Your task to perform on an android device: Open Google Chrome Image 0: 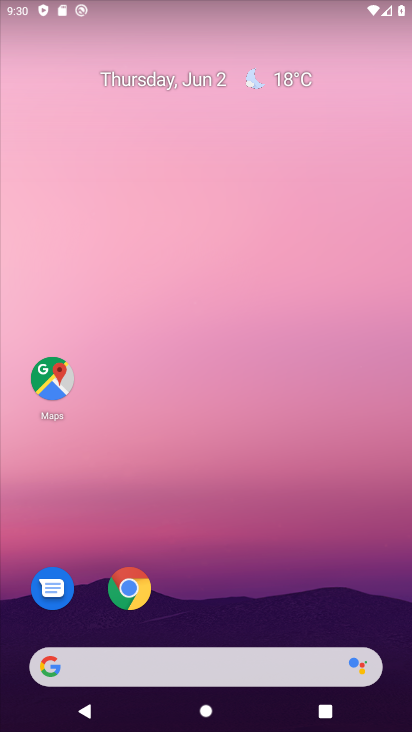
Step 0: drag from (268, 668) to (220, 282)
Your task to perform on an android device: Open Google Chrome Image 1: 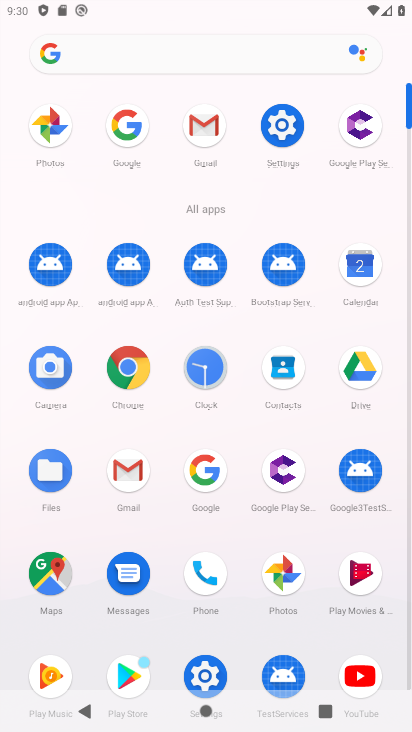
Step 1: click (116, 372)
Your task to perform on an android device: Open Google Chrome Image 2: 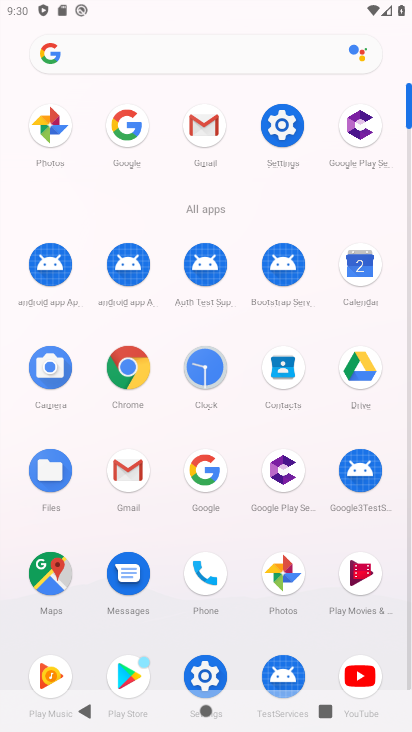
Step 2: click (120, 373)
Your task to perform on an android device: Open Google Chrome Image 3: 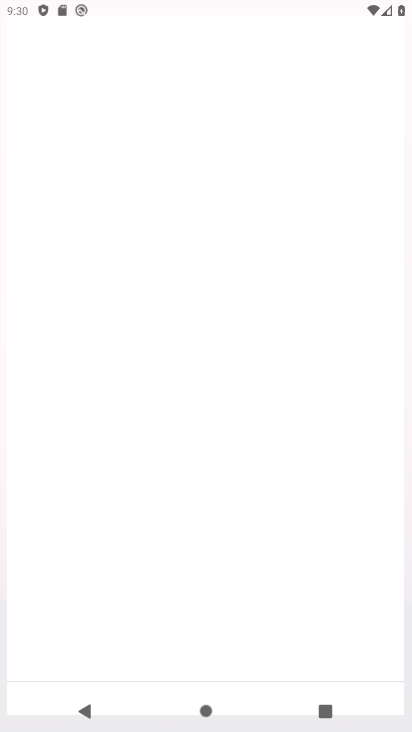
Step 3: click (123, 372)
Your task to perform on an android device: Open Google Chrome Image 4: 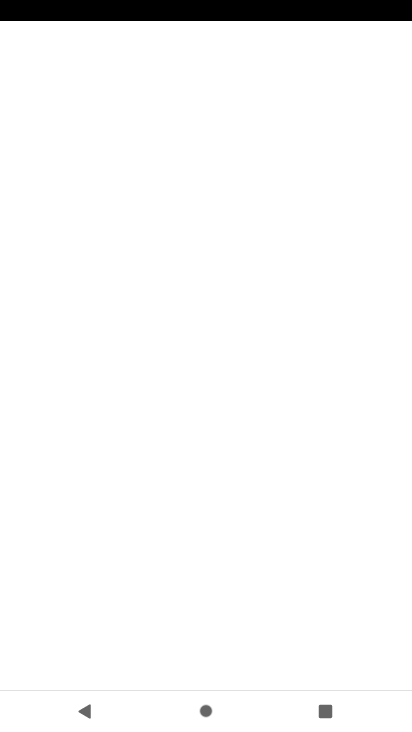
Step 4: click (123, 371)
Your task to perform on an android device: Open Google Chrome Image 5: 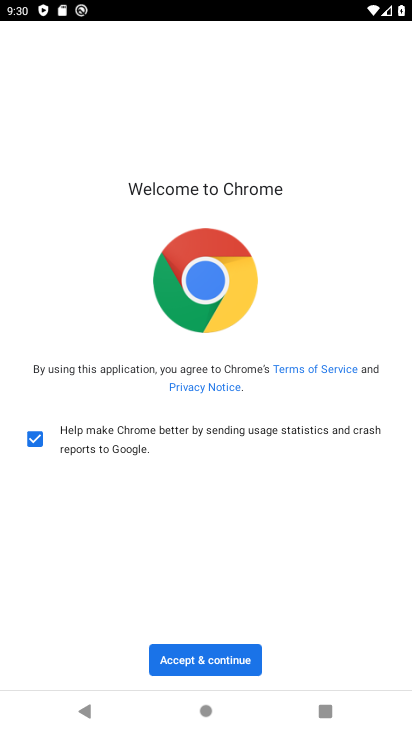
Step 5: click (204, 659)
Your task to perform on an android device: Open Google Chrome Image 6: 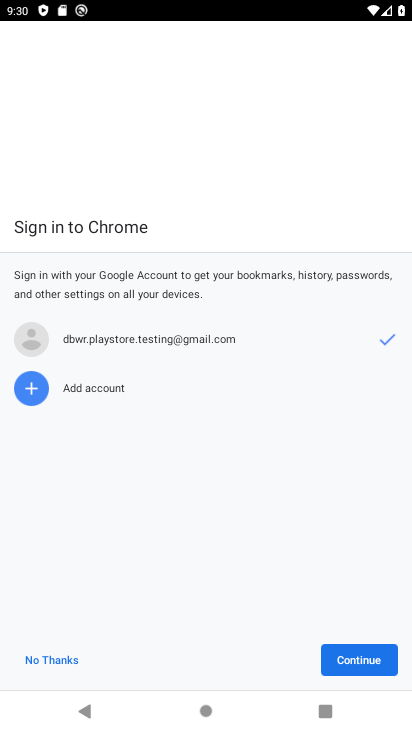
Step 6: task complete